Your task to perform on an android device: Empty the shopping cart on walmart. Add "amazon basics triple a" to the cart on walmart, then select checkout. Image 0: 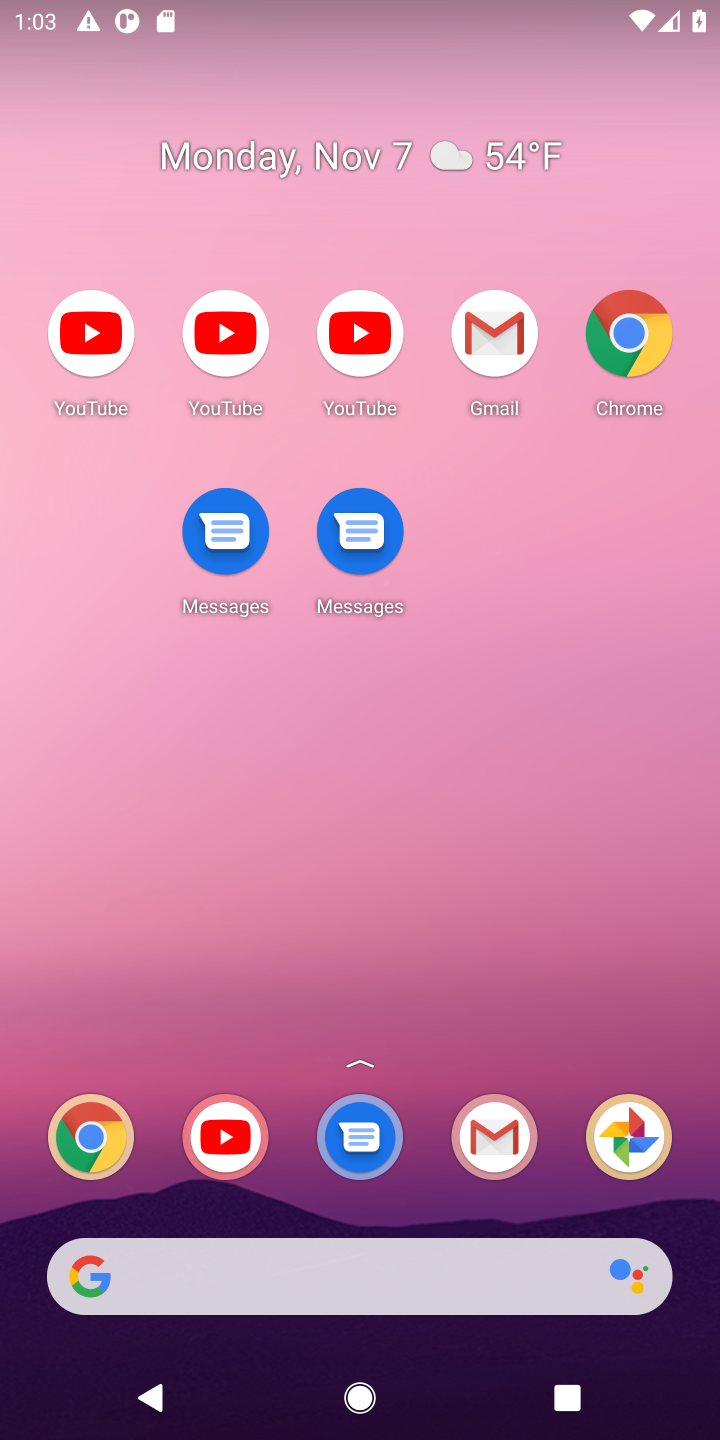
Step 0: drag from (483, 638) to (667, 647)
Your task to perform on an android device: Empty the shopping cart on walmart. Add "amazon basics triple a" to the cart on walmart, then select checkout. Image 1: 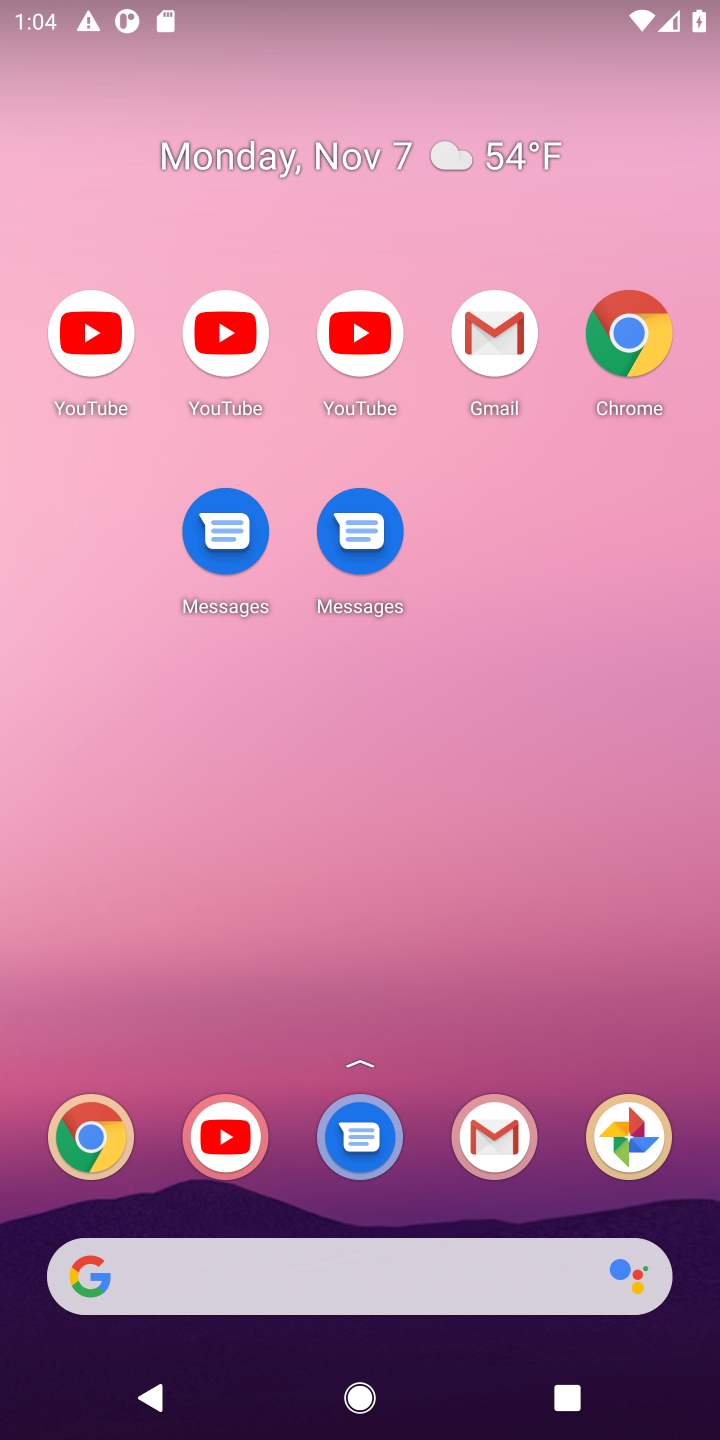
Step 1: drag from (424, 1202) to (641, 123)
Your task to perform on an android device: Empty the shopping cart on walmart. Add "amazon basics triple a" to the cart on walmart, then select checkout. Image 2: 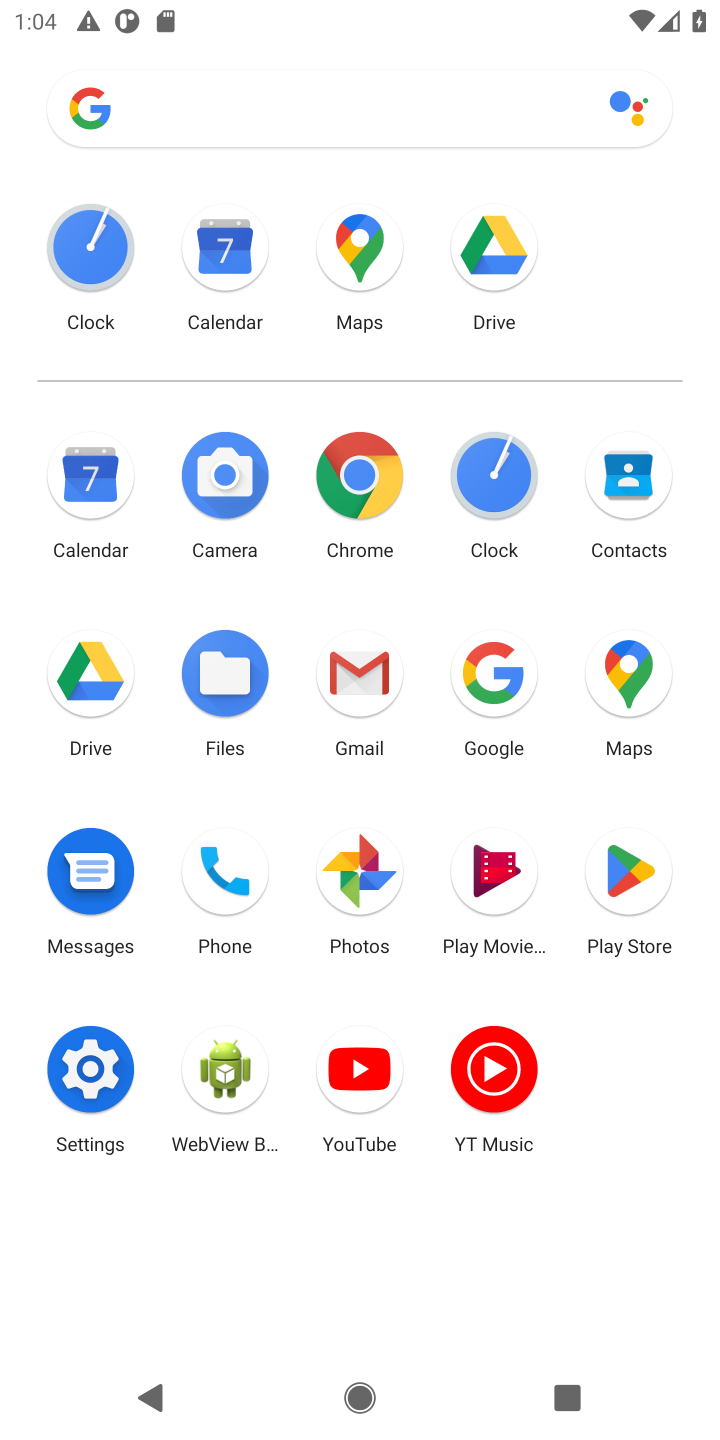
Step 2: click (366, 479)
Your task to perform on an android device: Empty the shopping cart on walmart. Add "amazon basics triple a" to the cart on walmart, then select checkout. Image 3: 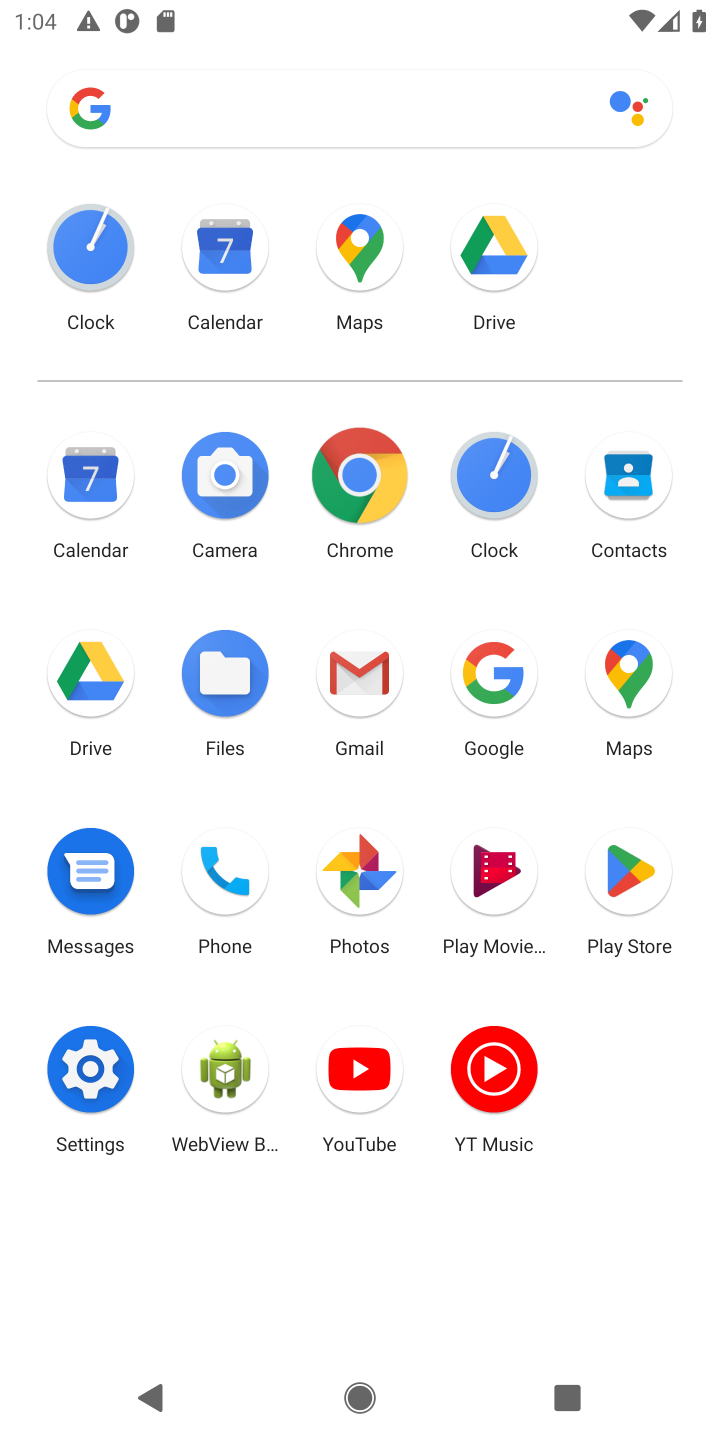
Step 3: click (370, 481)
Your task to perform on an android device: Empty the shopping cart on walmart. Add "amazon basics triple a" to the cart on walmart, then select checkout. Image 4: 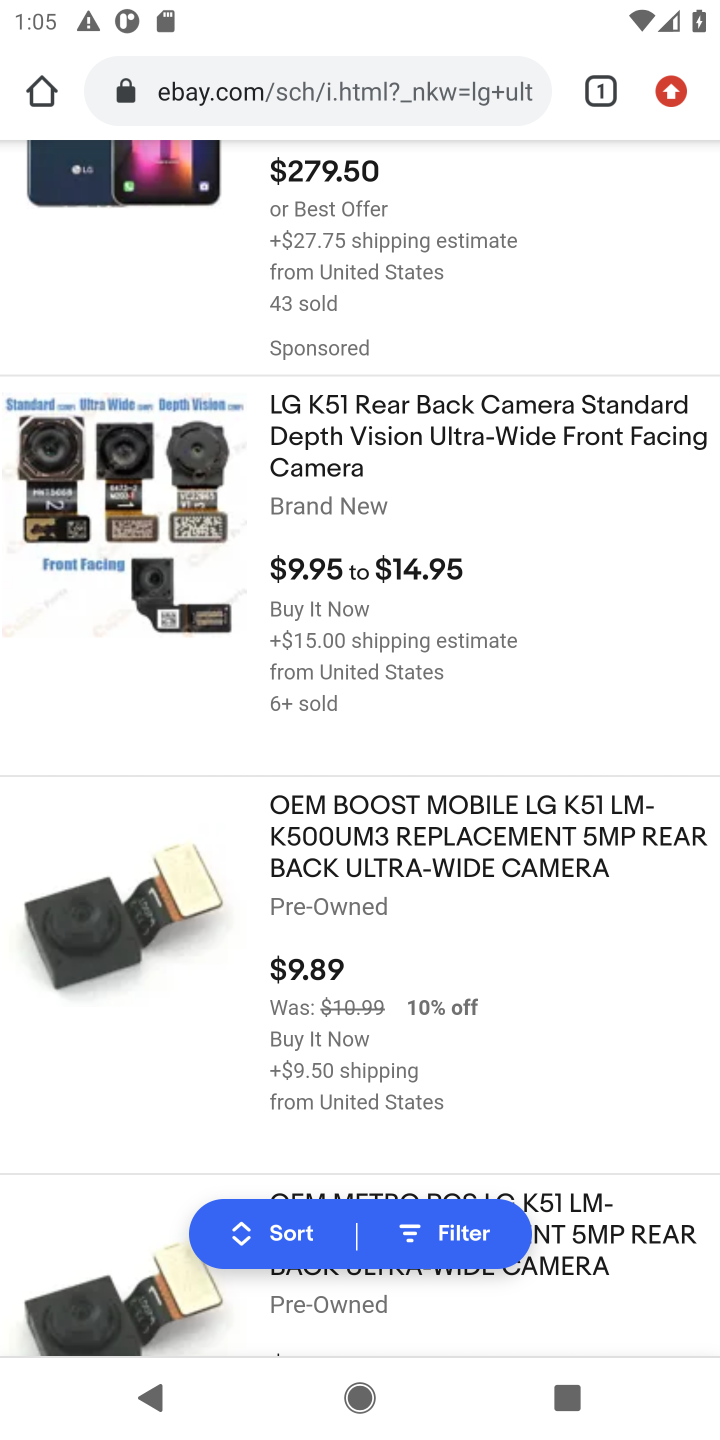
Step 4: click (379, 90)
Your task to perform on an android device: Empty the shopping cart on walmart. Add "amazon basics triple a" to the cart on walmart, then select checkout. Image 5: 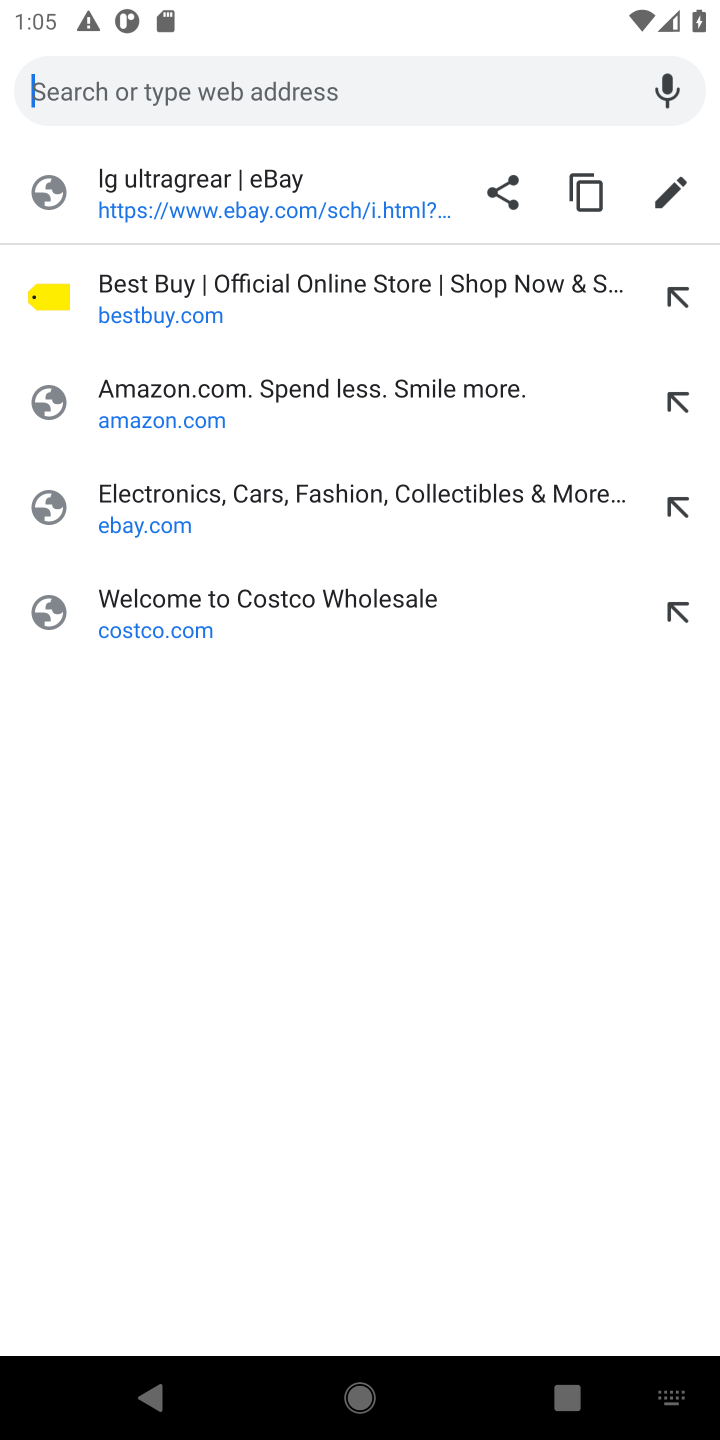
Step 5: type "walmart.com"
Your task to perform on an android device: Empty the shopping cart on walmart. Add "amazon basics triple a" to the cart on walmart, then select checkout. Image 6: 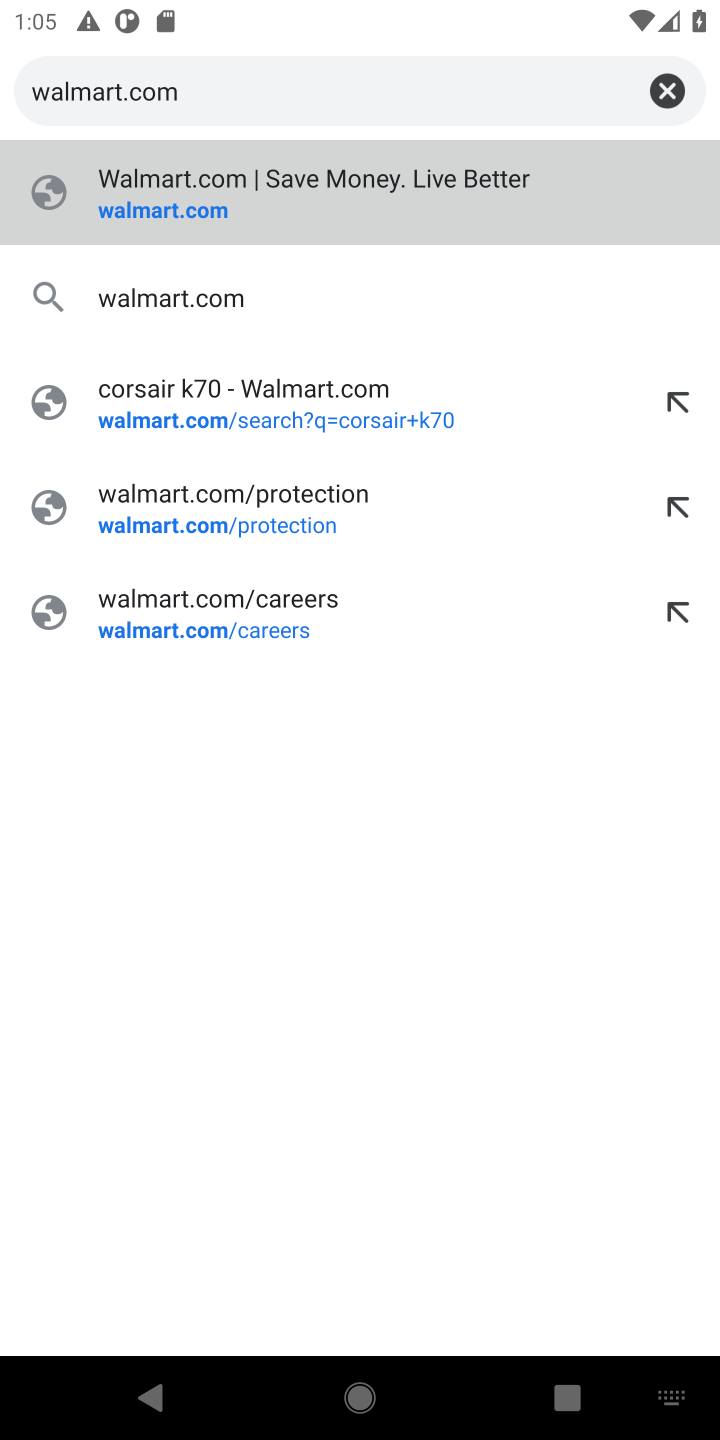
Step 6: press enter
Your task to perform on an android device: Empty the shopping cart on walmart. Add "amazon basics triple a" to the cart on walmart, then select checkout. Image 7: 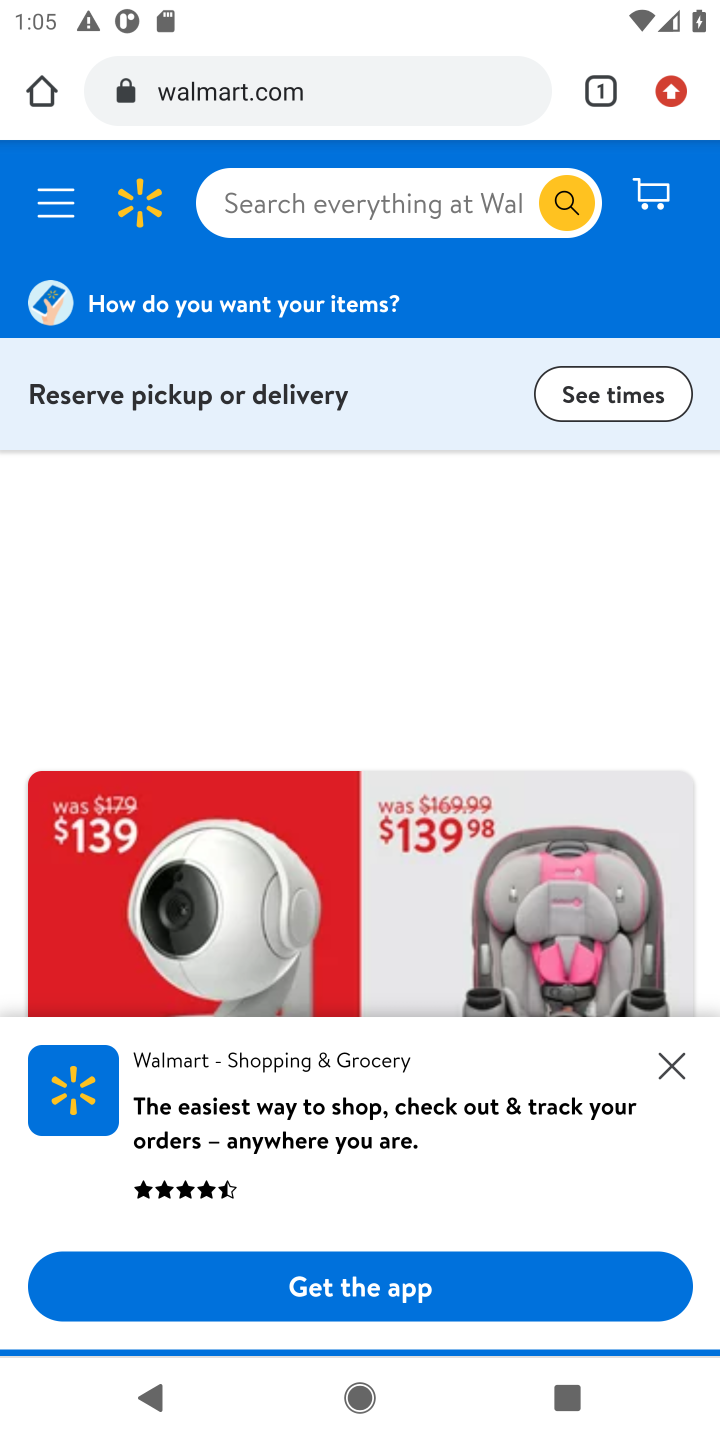
Step 7: click (667, 204)
Your task to perform on an android device: Empty the shopping cart on walmart. Add "amazon basics triple a" to the cart on walmart, then select checkout. Image 8: 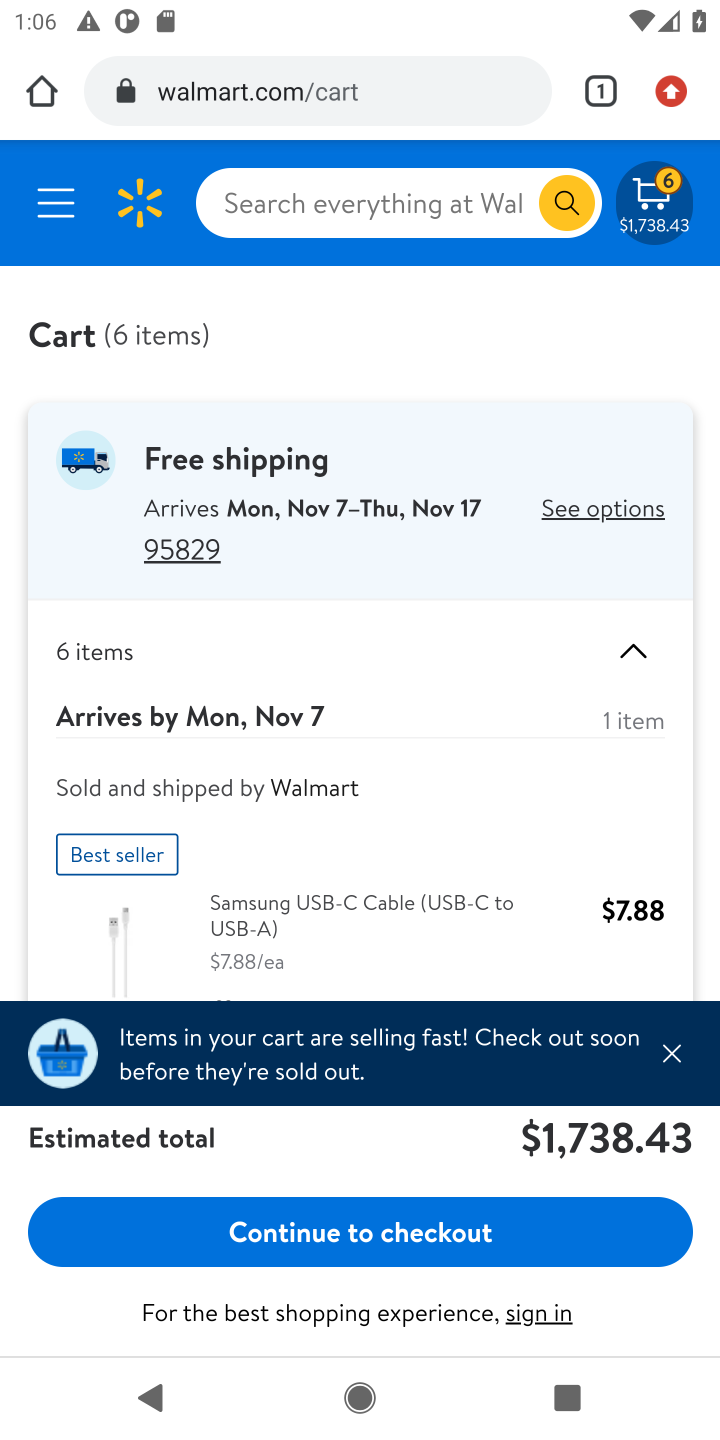
Step 8: drag from (417, 898) to (459, 343)
Your task to perform on an android device: Empty the shopping cart on walmart. Add "amazon basics triple a" to the cart on walmart, then select checkout. Image 9: 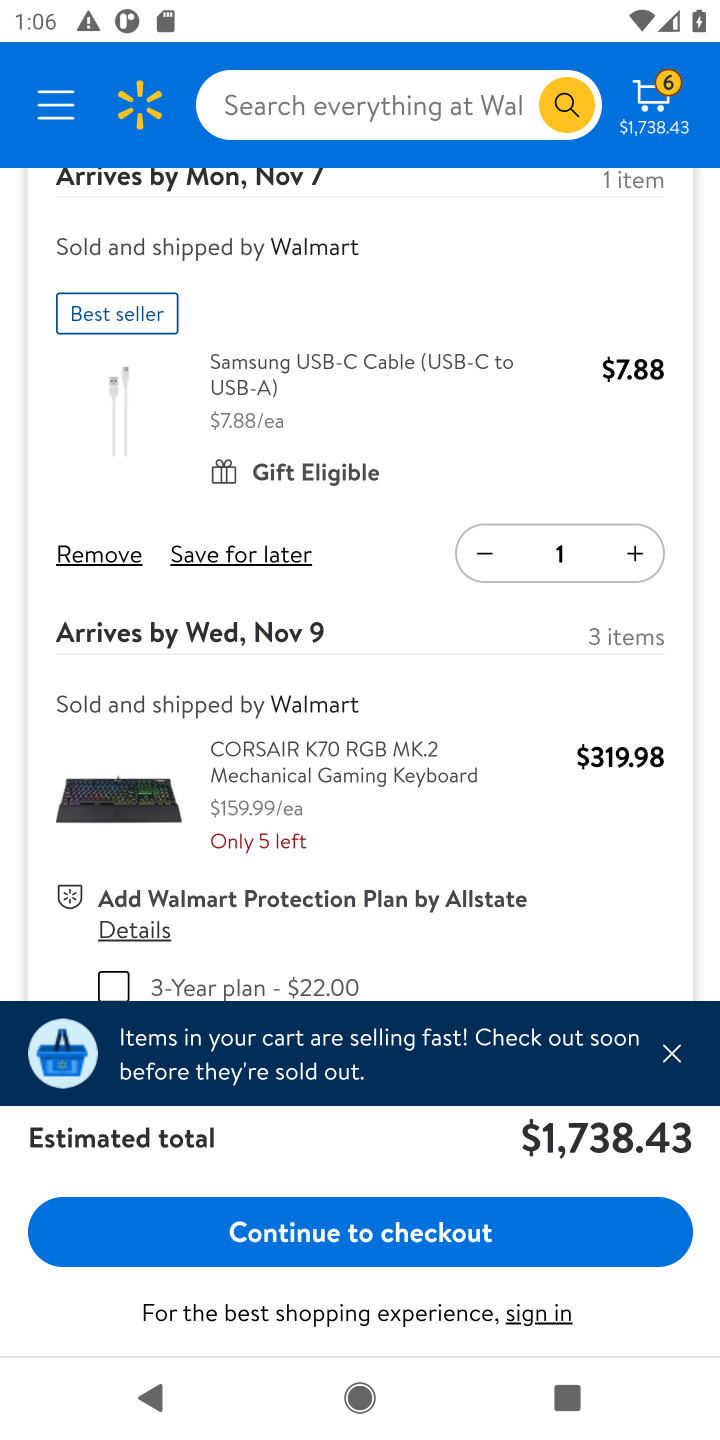
Step 9: click (104, 547)
Your task to perform on an android device: Empty the shopping cart on walmart. Add "amazon basics triple a" to the cart on walmart, then select checkout. Image 10: 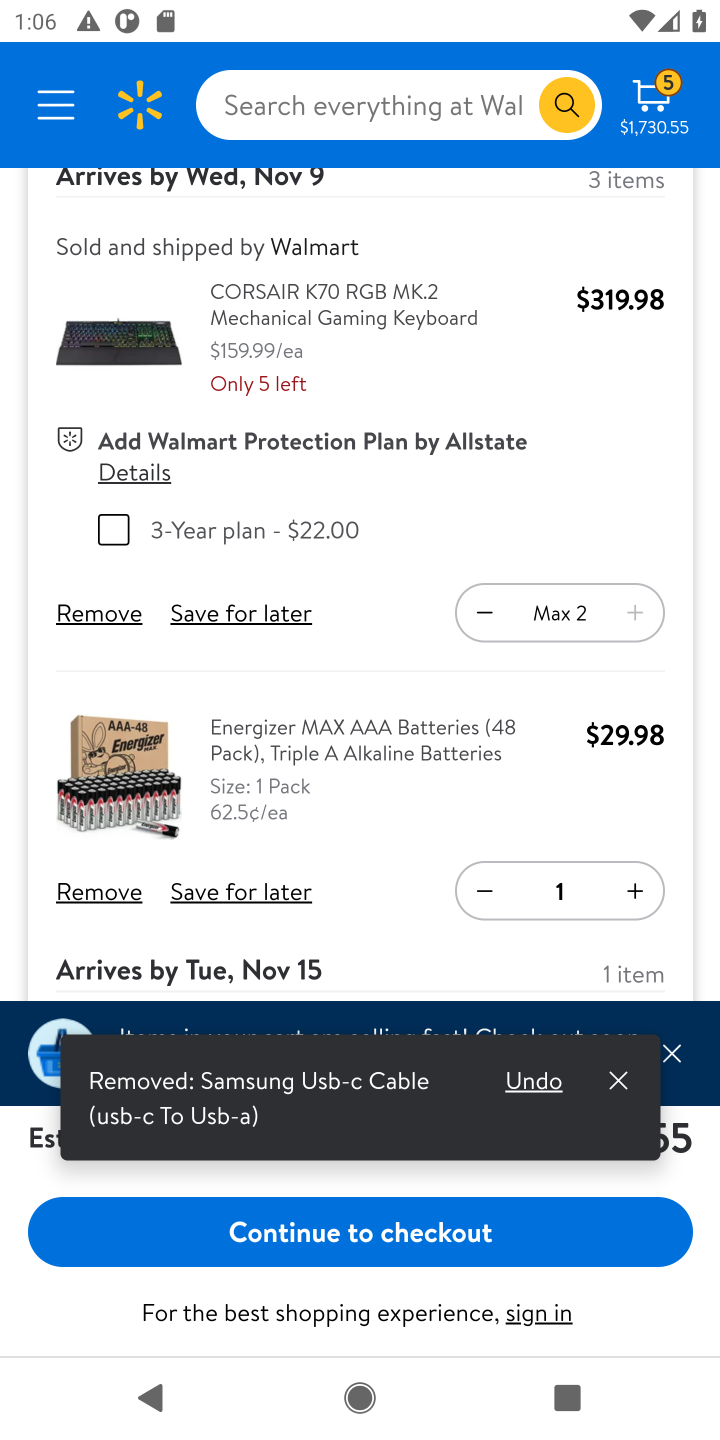
Step 10: click (77, 625)
Your task to perform on an android device: Empty the shopping cart on walmart. Add "amazon basics triple a" to the cart on walmart, then select checkout. Image 11: 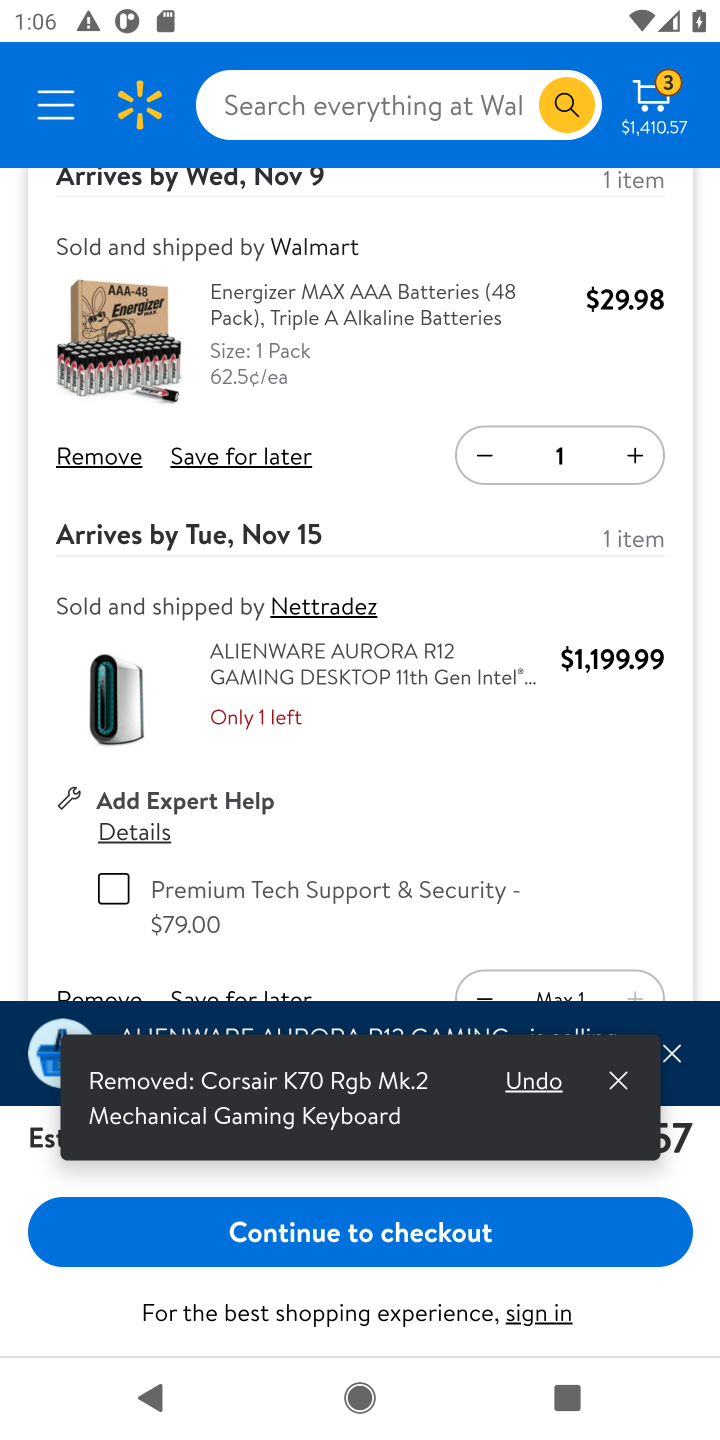
Step 11: click (95, 464)
Your task to perform on an android device: Empty the shopping cart on walmart. Add "amazon basics triple a" to the cart on walmart, then select checkout. Image 12: 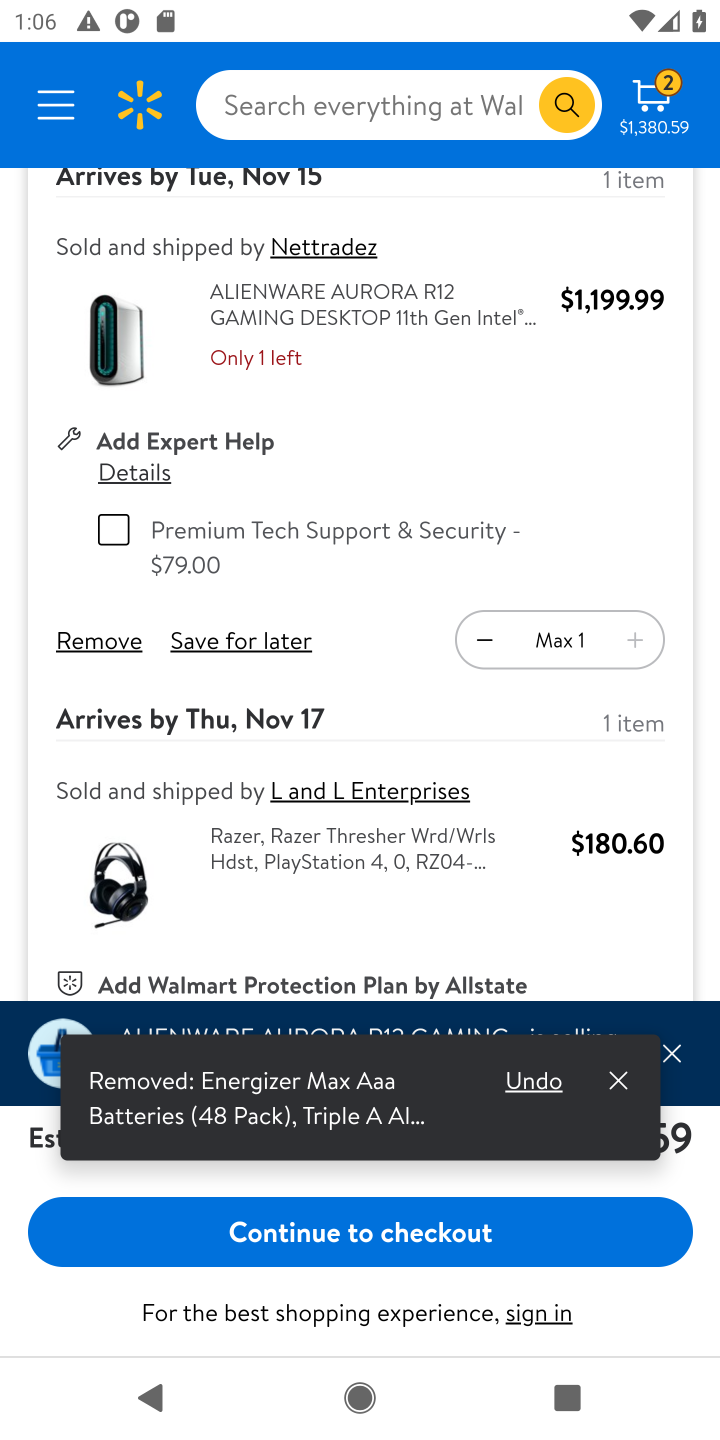
Step 12: click (101, 654)
Your task to perform on an android device: Empty the shopping cart on walmart. Add "amazon basics triple a" to the cart on walmart, then select checkout. Image 13: 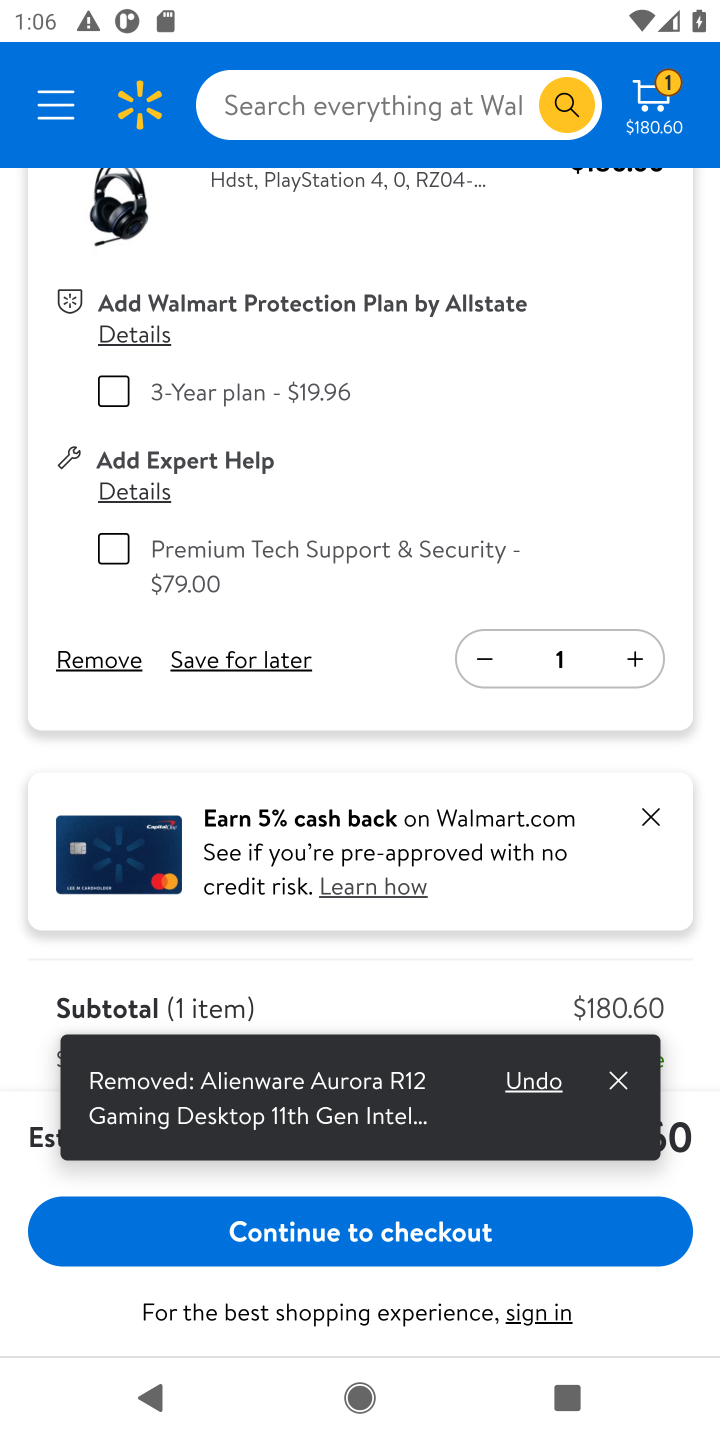
Step 13: click (101, 654)
Your task to perform on an android device: Empty the shopping cart on walmart. Add "amazon basics triple a" to the cart on walmart, then select checkout. Image 14: 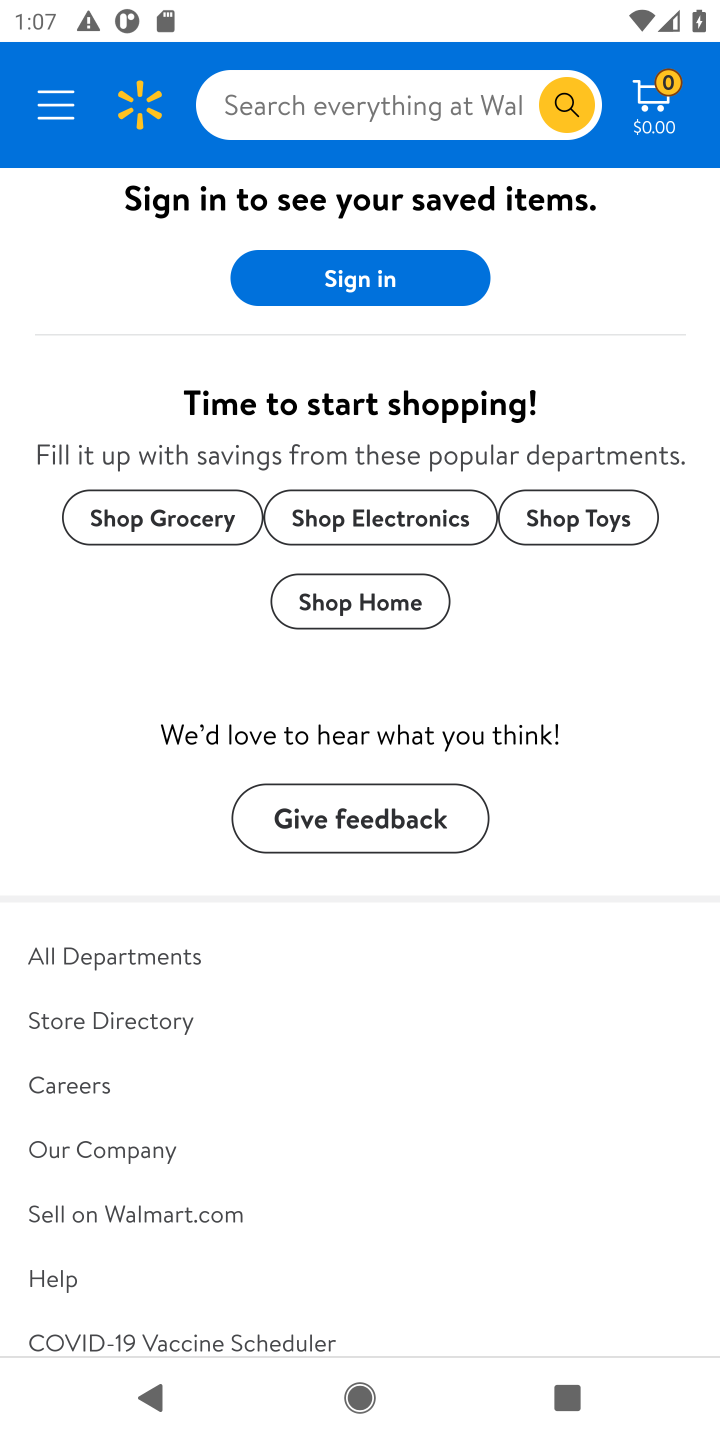
Step 14: click (420, 102)
Your task to perform on an android device: Empty the shopping cart on walmart. Add "amazon basics triple a" to the cart on walmart, then select checkout. Image 15: 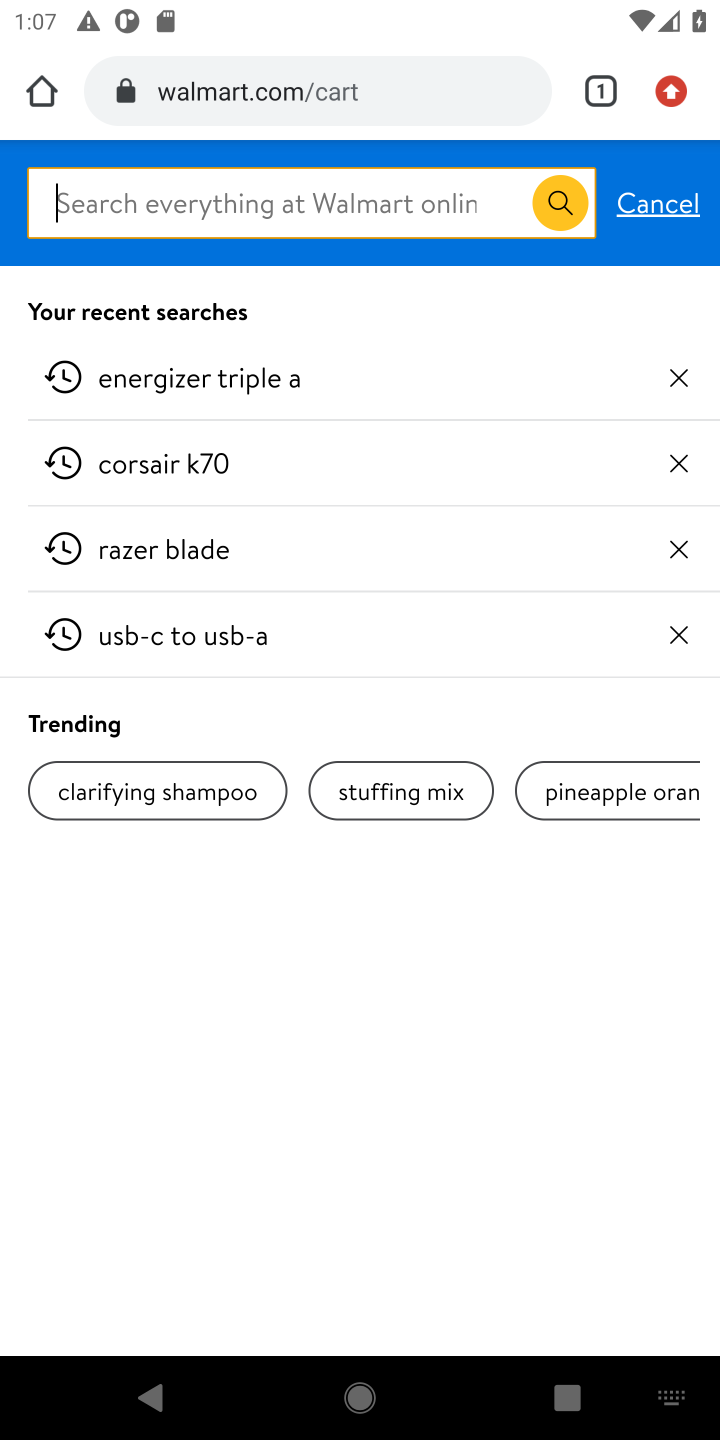
Step 15: type "amazon basic triple a"
Your task to perform on an android device: Empty the shopping cart on walmart. Add "amazon basics triple a" to the cart on walmart, then select checkout. Image 16: 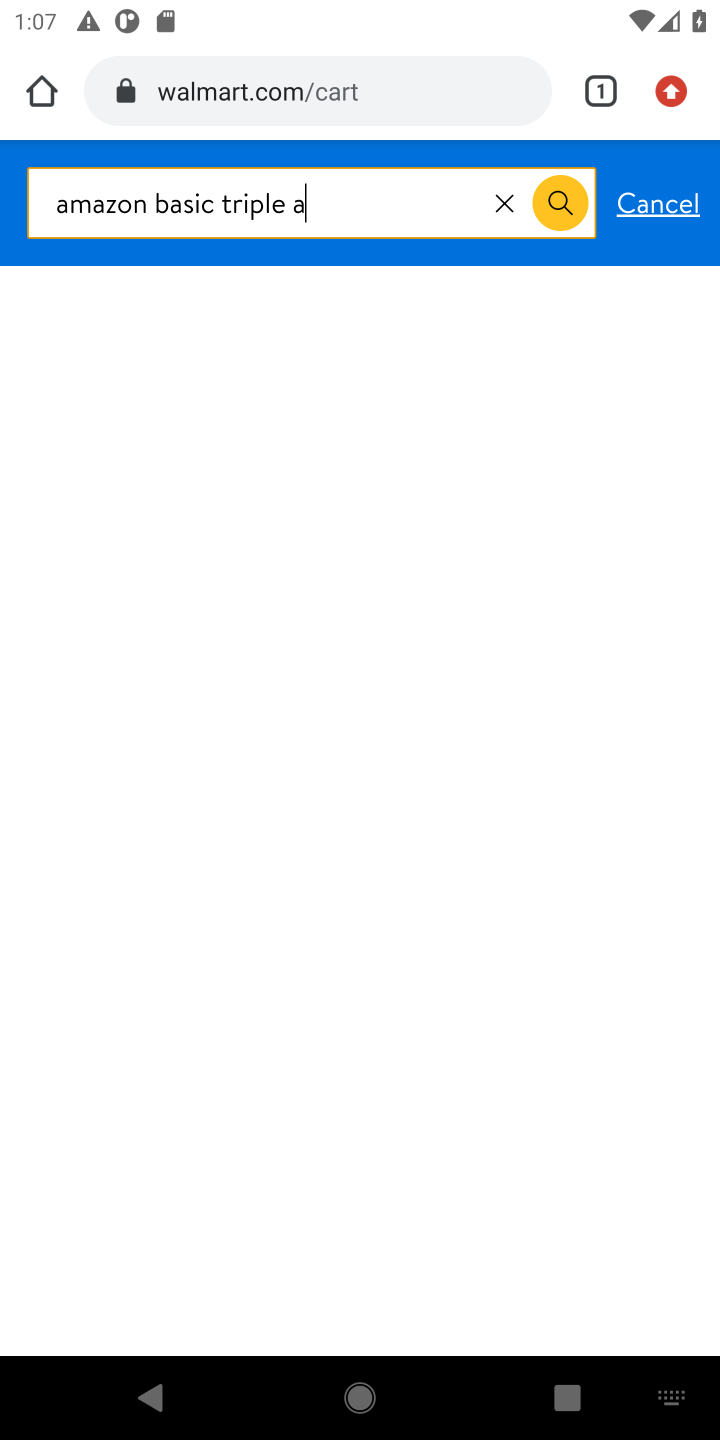
Step 16: press enter
Your task to perform on an android device: Empty the shopping cart on walmart. Add "amazon basics triple a" to the cart on walmart, then select checkout. Image 17: 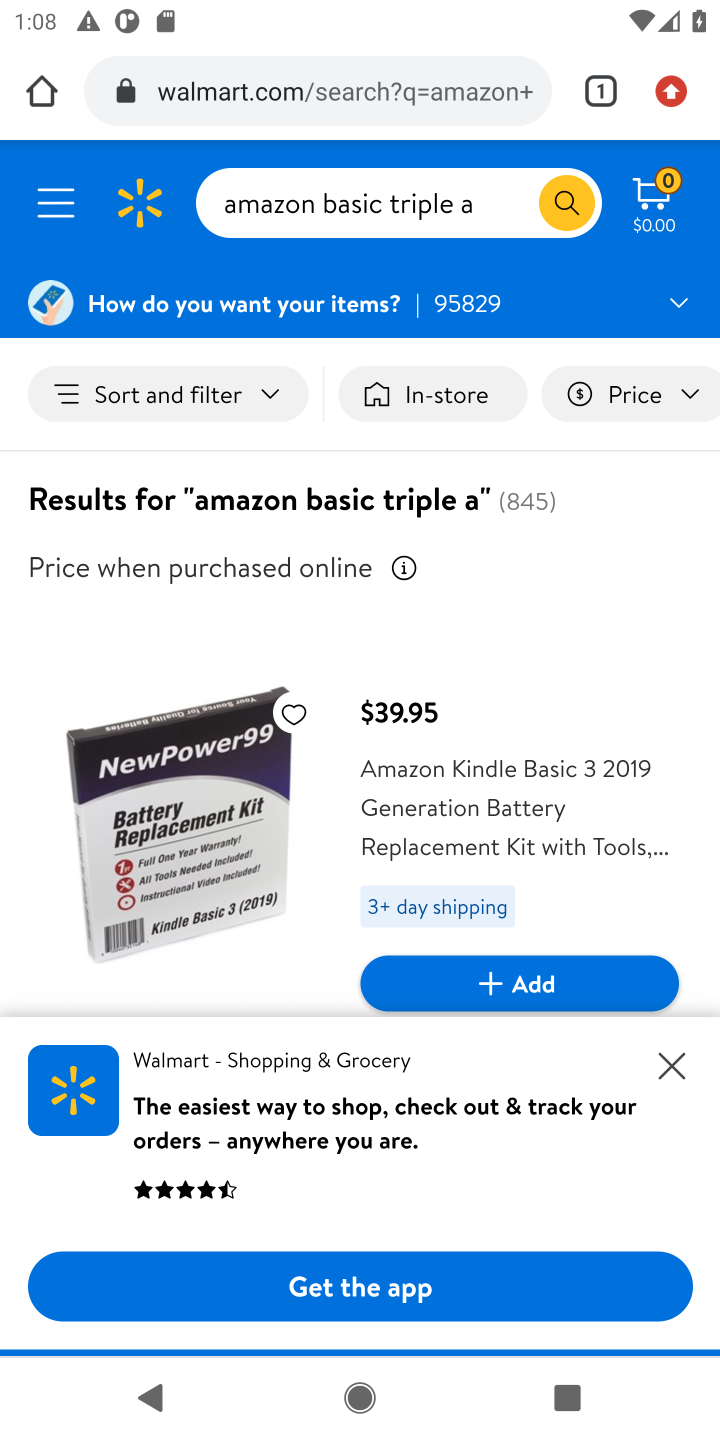
Step 17: task complete